Your task to perform on an android device: Go to notification settings Image 0: 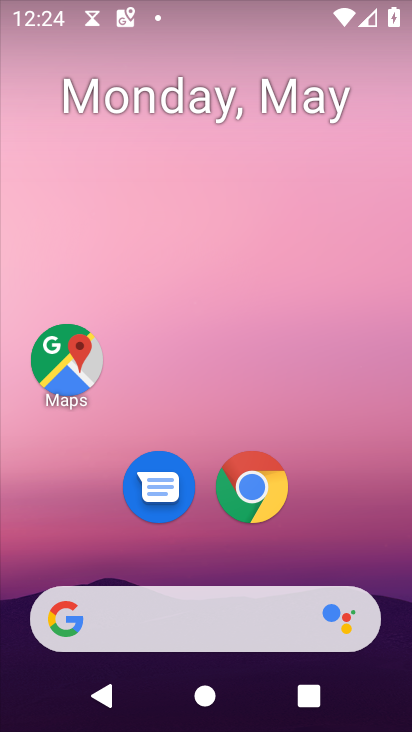
Step 0: drag from (318, 539) to (281, 36)
Your task to perform on an android device: Go to notification settings Image 1: 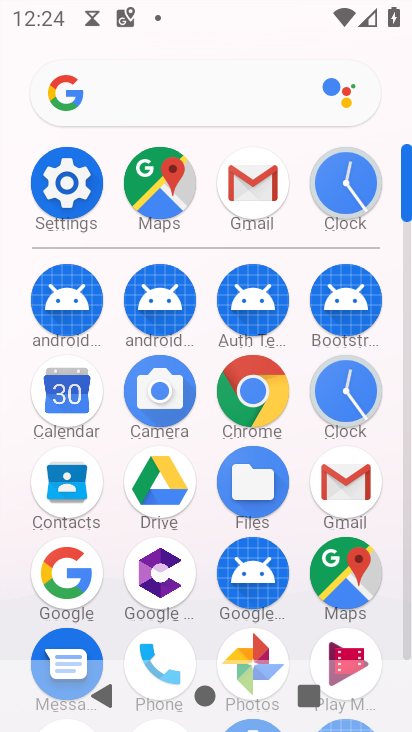
Step 1: click (68, 180)
Your task to perform on an android device: Go to notification settings Image 2: 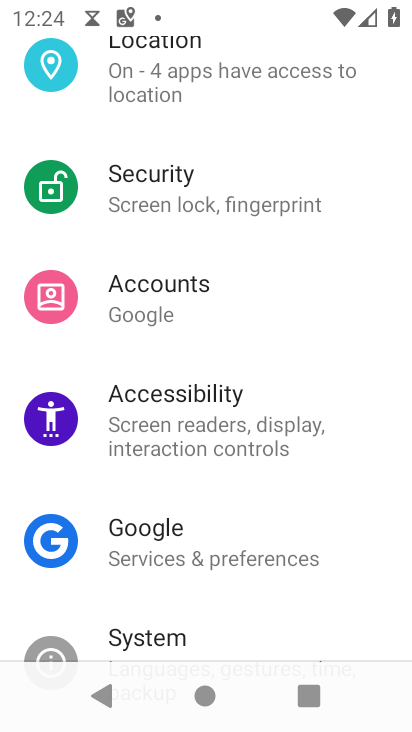
Step 2: drag from (160, 371) to (219, 716)
Your task to perform on an android device: Go to notification settings Image 3: 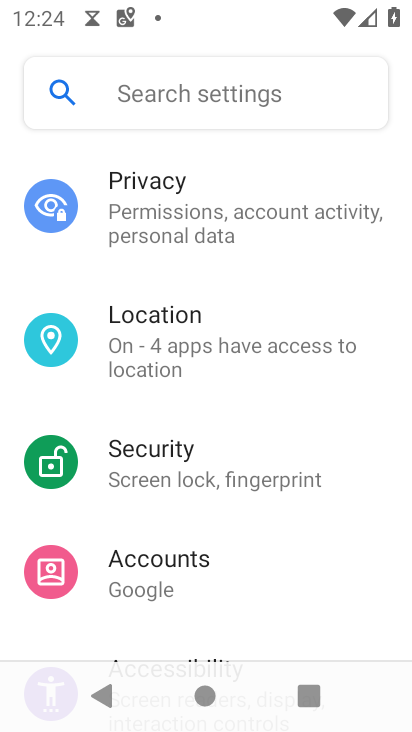
Step 3: drag from (196, 331) to (220, 626)
Your task to perform on an android device: Go to notification settings Image 4: 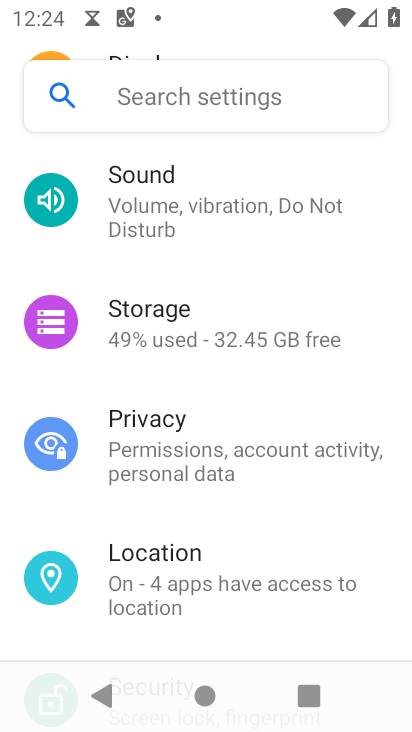
Step 4: drag from (165, 282) to (171, 639)
Your task to perform on an android device: Go to notification settings Image 5: 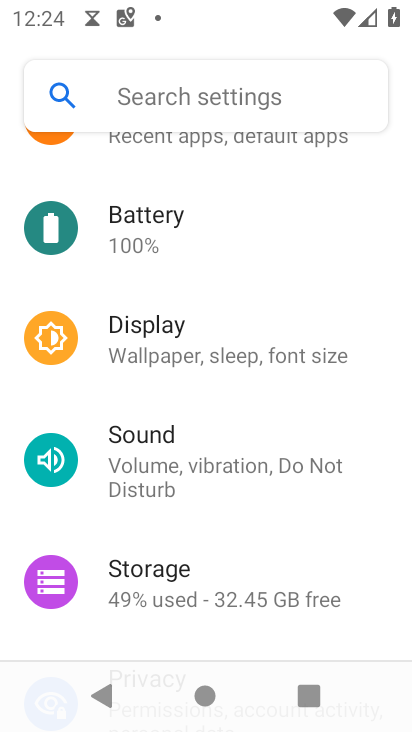
Step 5: drag from (223, 490) to (213, 698)
Your task to perform on an android device: Go to notification settings Image 6: 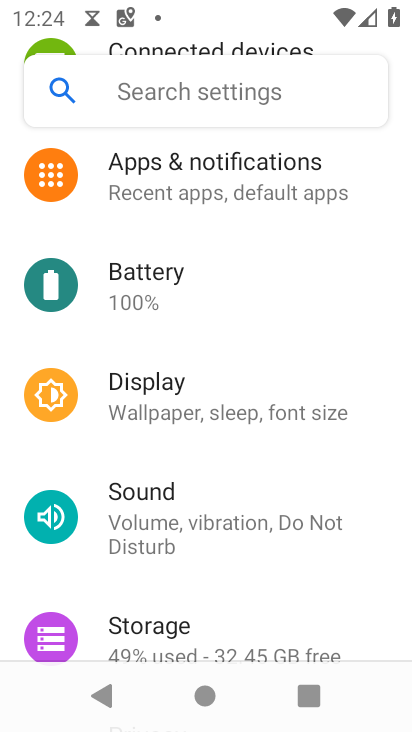
Step 6: click (249, 165)
Your task to perform on an android device: Go to notification settings Image 7: 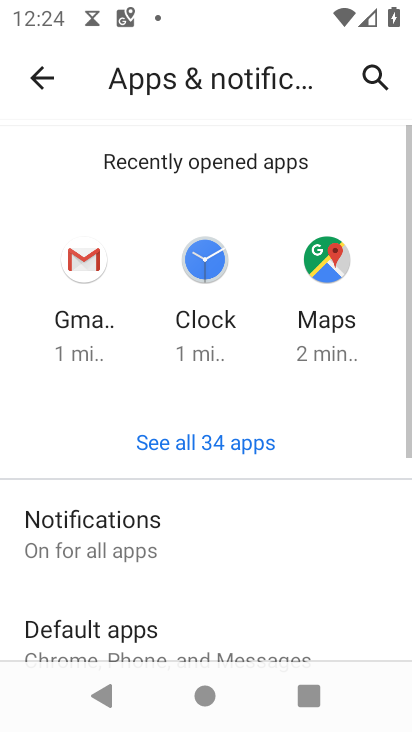
Step 7: click (196, 534)
Your task to perform on an android device: Go to notification settings Image 8: 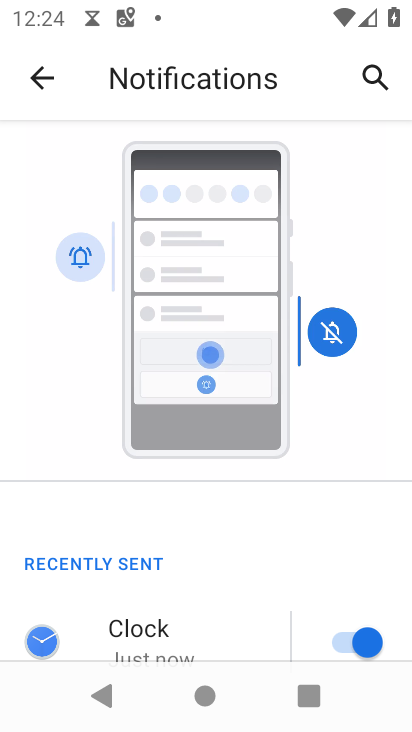
Step 8: task complete